Your task to perform on an android device: toggle priority inbox in the gmail app Image 0: 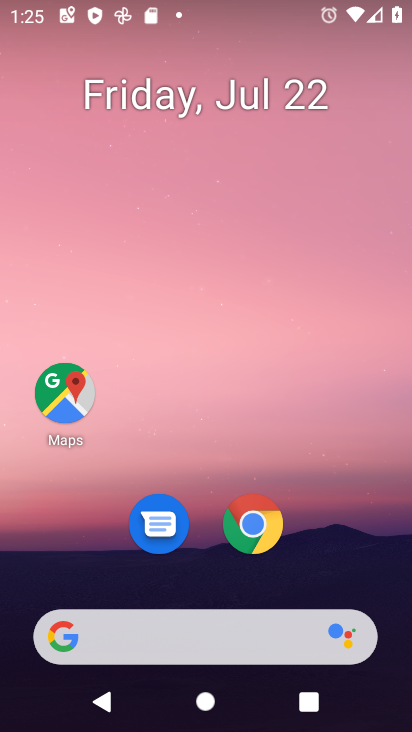
Step 0: drag from (174, 649) to (308, 195)
Your task to perform on an android device: toggle priority inbox in the gmail app Image 1: 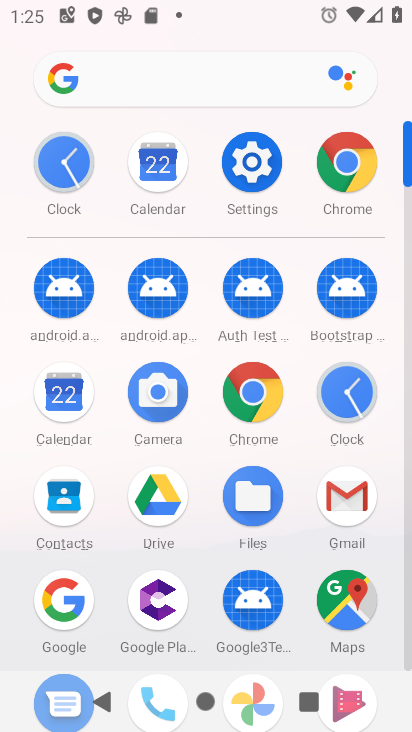
Step 1: click (333, 507)
Your task to perform on an android device: toggle priority inbox in the gmail app Image 2: 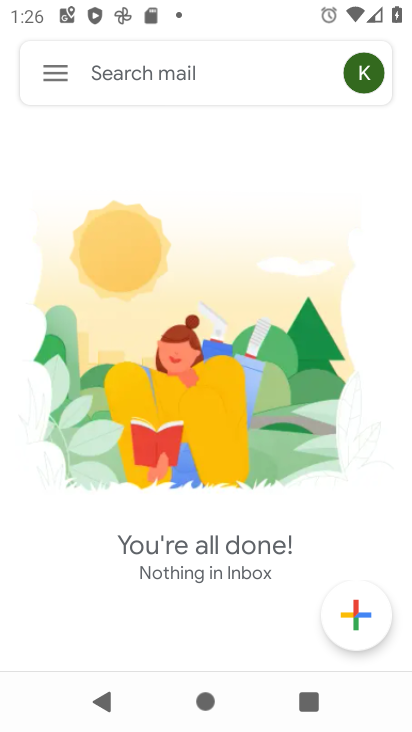
Step 2: click (54, 80)
Your task to perform on an android device: toggle priority inbox in the gmail app Image 3: 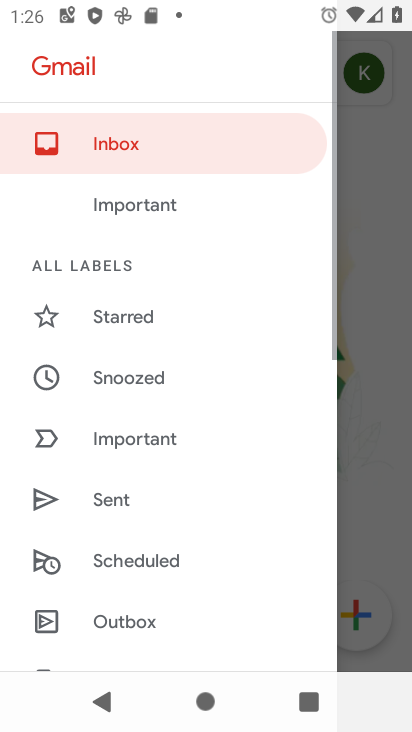
Step 3: drag from (221, 407) to (247, 171)
Your task to perform on an android device: toggle priority inbox in the gmail app Image 4: 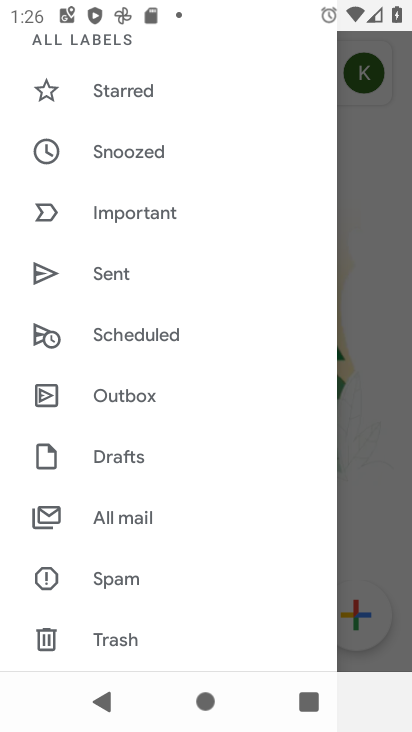
Step 4: drag from (167, 595) to (196, 252)
Your task to perform on an android device: toggle priority inbox in the gmail app Image 5: 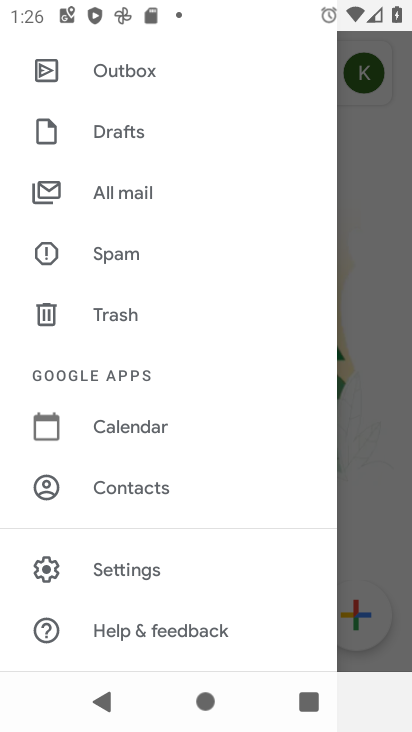
Step 5: click (136, 577)
Your task to perform on an android device: toggle priority inbox in the gmail app Image 6: 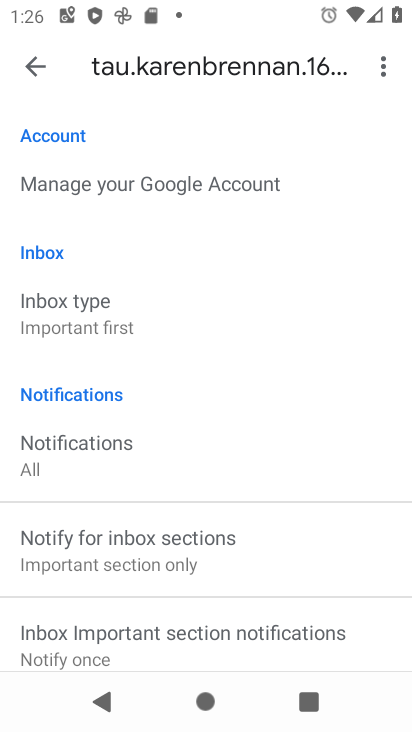
Step 6: click (97, 328)
Your task to perform on an android device: toggle priority inbox in the gmail app Image 7: 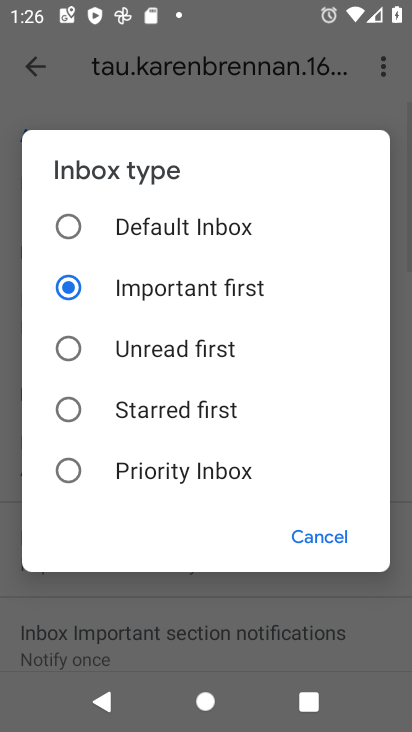
Step 7: click (67, 468)
Your task to perform on an android device: toggle priority inbox in the gmail app Image 8: 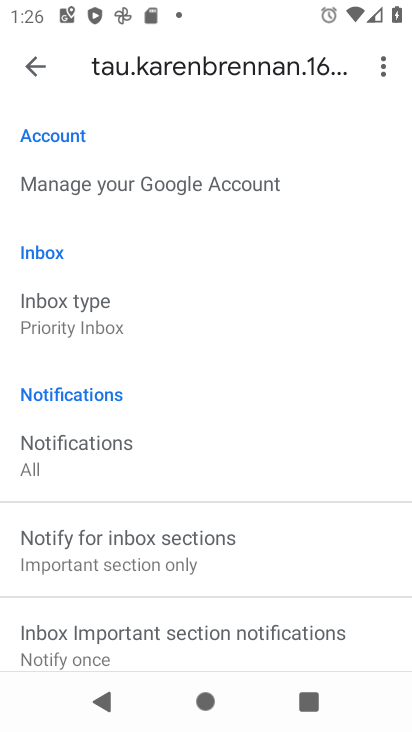
Step 8: task complete